Your task to perform on an android device: Go to ESPN.com Image 0: 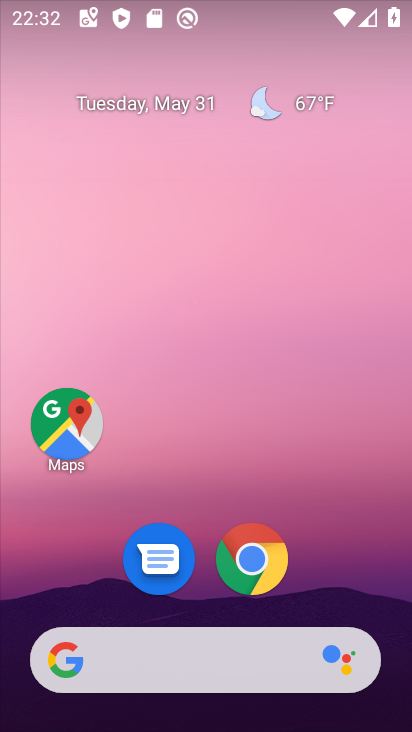
Step 0: drag from (318, 578) to (277, 127)
Your task to perform on an android device: Go to ESPN.com Image 1: 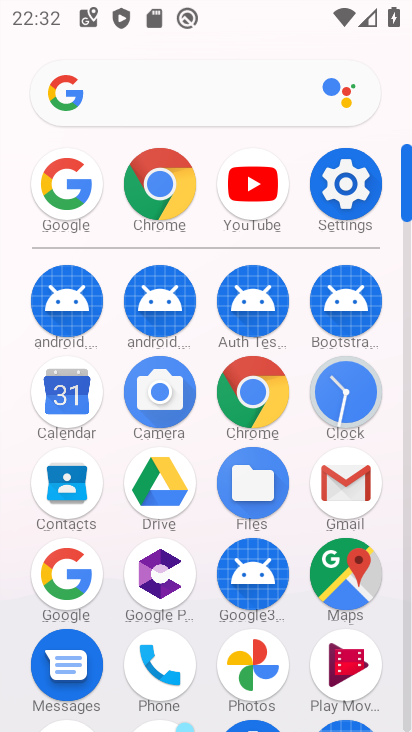
Step 1: click (67, 191)
Your task to perform on an android device: Go to ESPN.com Image 2: 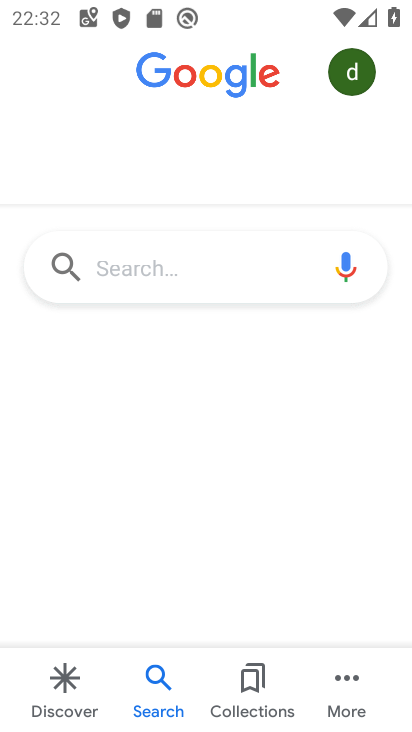
Step 2: click (142, 281)
Your task to perform on an android device: Go to ESPN.com Image 3: 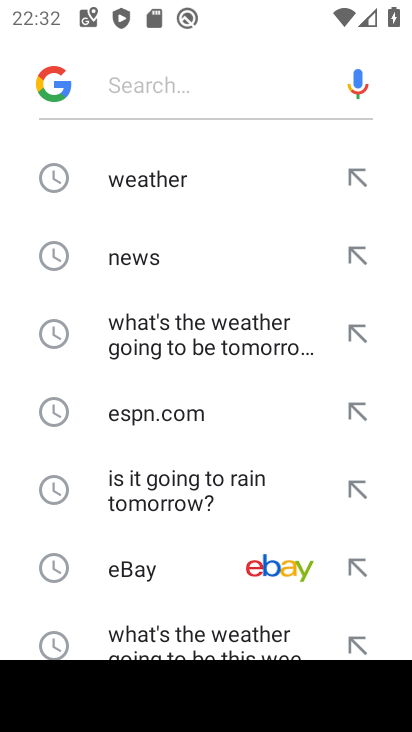
Step 3: drag from (178, 564) to (208, 259)
Your task to perform on an android device: Go to ESPN.com Image 4: 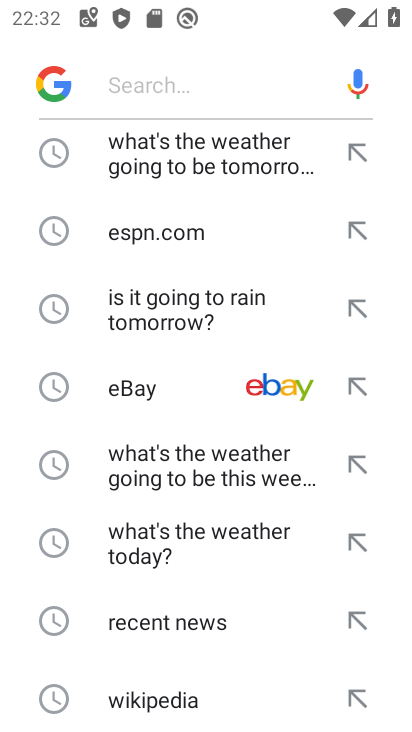
Step 4: click (127, 238)
Your task to perform on an android device: Go to ESPN.com Image 5: 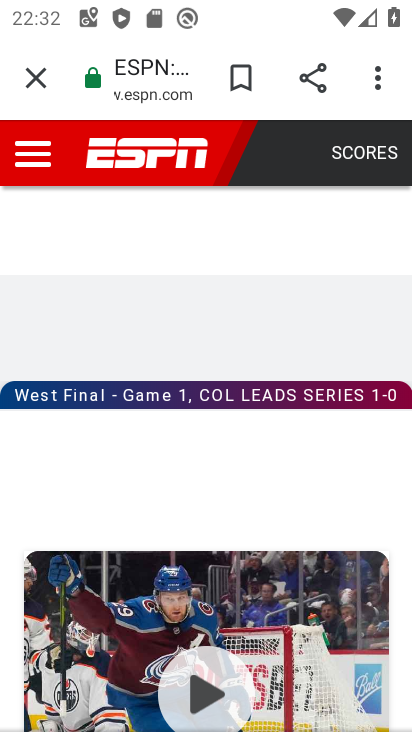
Step 5: task complete